Your task to perform on an android device: Search for sushi restaurants on Maps Image 0: 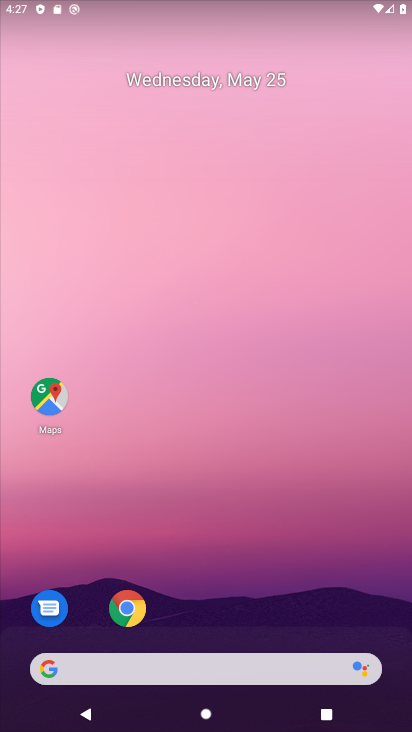
Step 0: click (59, 383)
Your task to perform on an android device: Search for sushi restaurants on Maps Image 1: 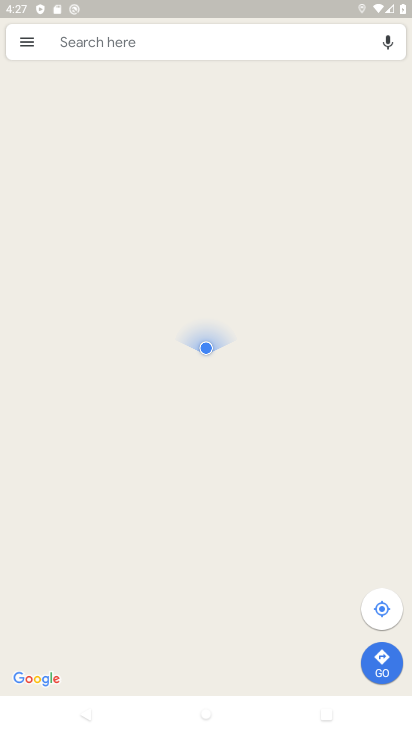
Step 1: click (146, 38)
Your task to perform on an android device: Search for sushi restaurants on Maps Image 2: 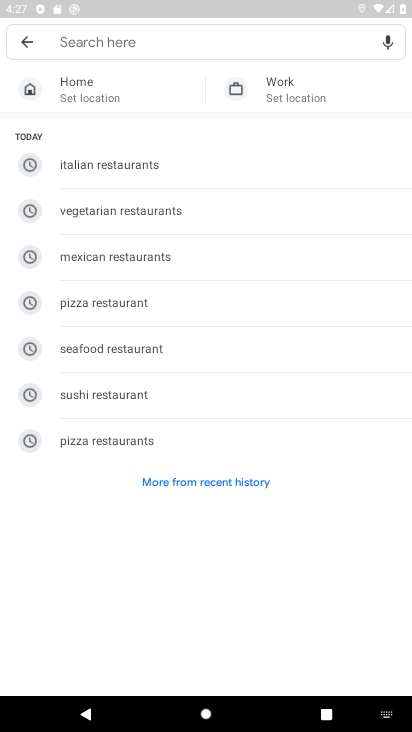
Step 2: type "sushi restaurants"
Your task to perform on an android device: Search for sushi restaurants on Maps Image 3: 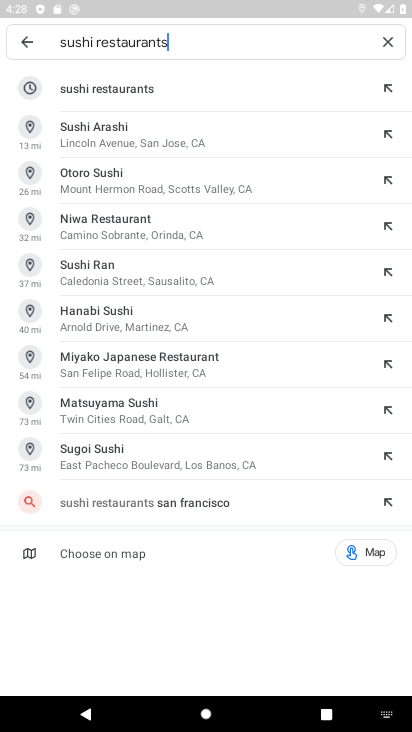
Step 3: click (290, 86)
Your task to perform on an android device: Search for sushi restaurants on Maps Image 4: 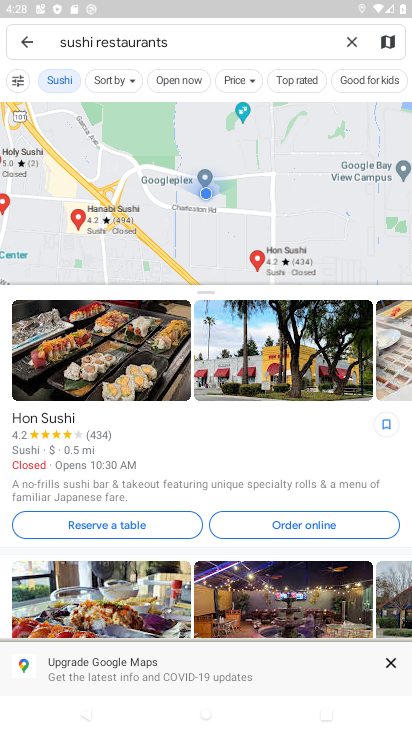
Step 4: task complete